Your task to perform on an android device: turn notification dots on Image 0: 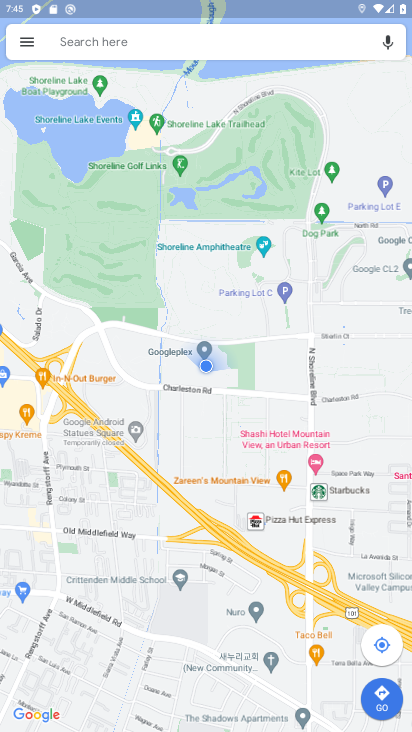
Step 0: press home button
Your task to perform on an android device: turn notification dots on Image 1: 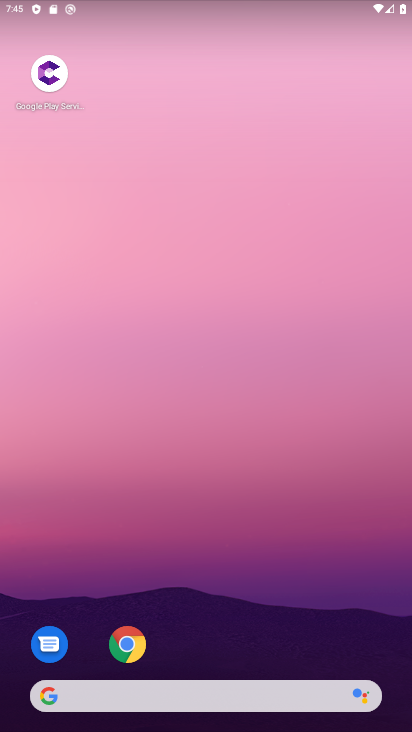
Step 1: drag from (204, 724) to (204, 115)
Your task to perform on an android device: turn notification dots on Image 2: 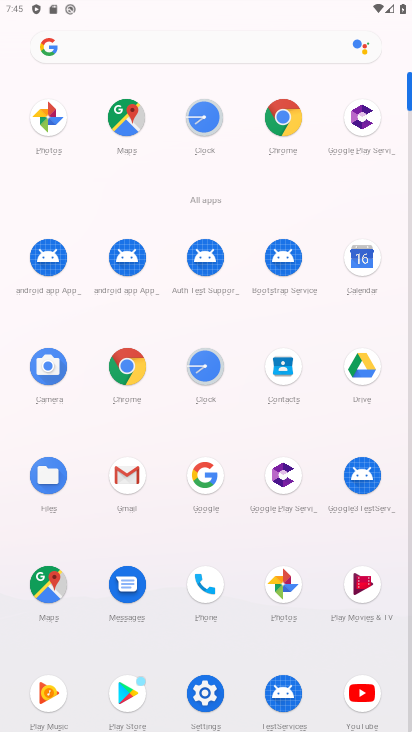
Step 2: click (206, 696)
Your task to perform on an android device: turn notification dots on Image 3: 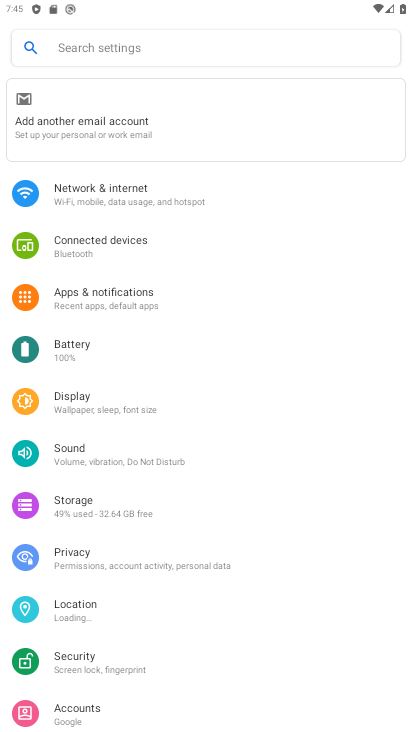
Step 3: click (169, 304)
Your task to perform on an android device: turn notification dots on Image 4: 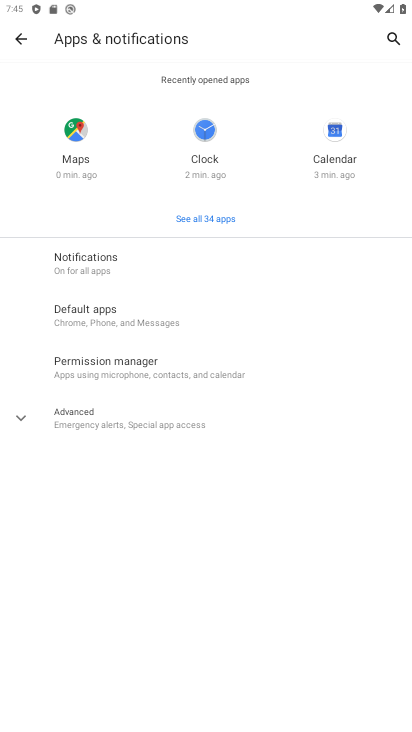
Step 4: click (81, 257)
Your task to perform on an android device: turn notification dots on Image 5: 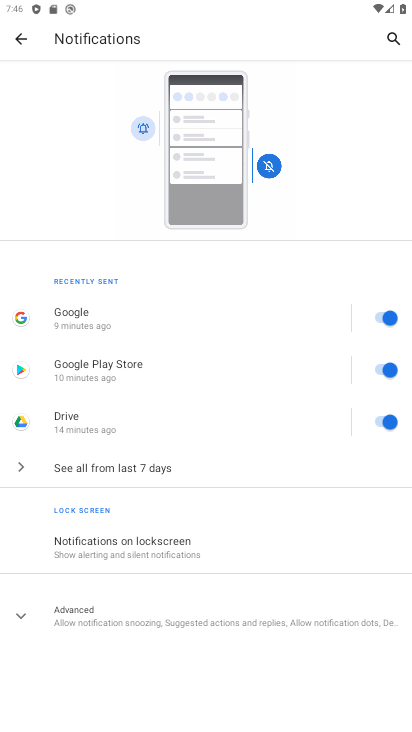
Step 5: click (148, 617)
Your task to perform on an android device: turn notification dots on Image 6: 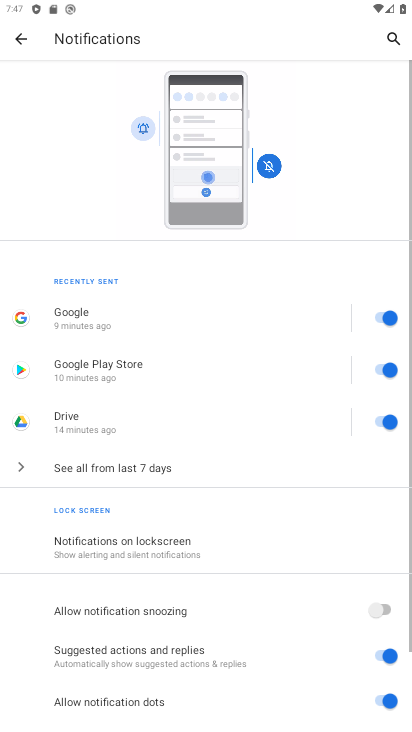
Step 6: task complete